Your task to perform on an android device: open sync settings in chrome Image 0: 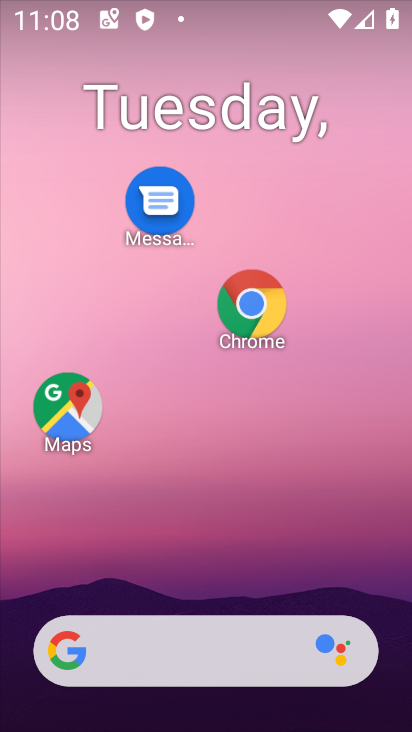
Step 0: drag from (247, 263) to (249, 173)
Your task to perform on an android device: open sync settings in chrome Image 1: 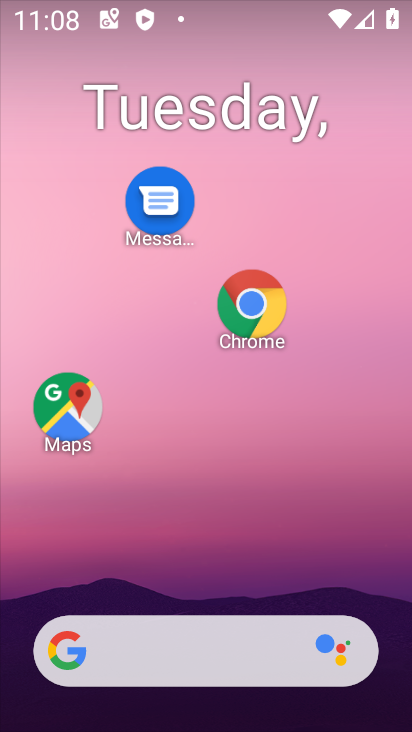
Step 1: drag from (270, 241) to (304, 120)
Your task to perform on an android device: open sync settings in chrome Image 2: 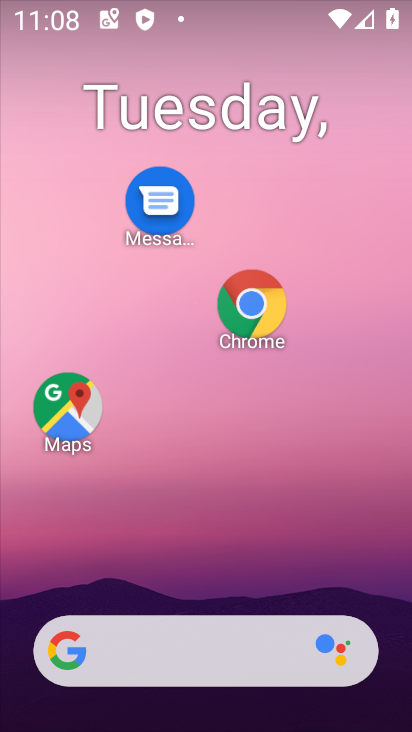
Step 2: drag from (174, 713) to (323, 114)
Your task to perform on an android device: open sync settings in chrome Image 3: 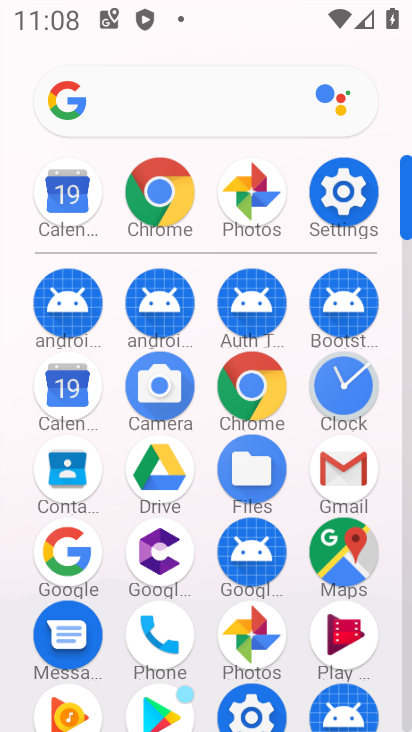
Step 3: click (253, 369)
Your task to perform on an android device: open sync settings in chrome Image 4: 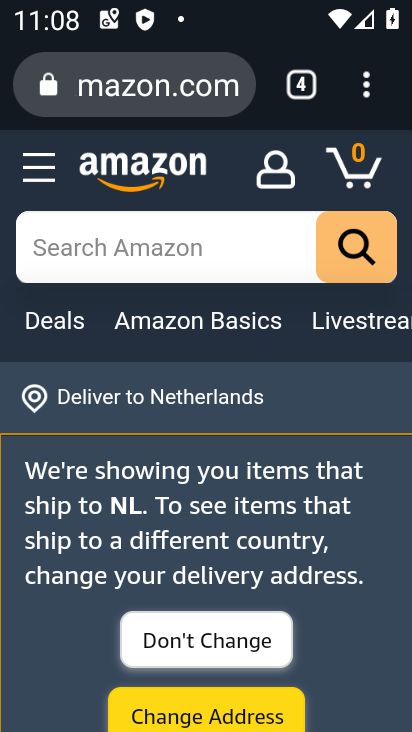
Step 4: click (365, 78)
Your task to perform on an android device: open sync settings in chrome Image 5: 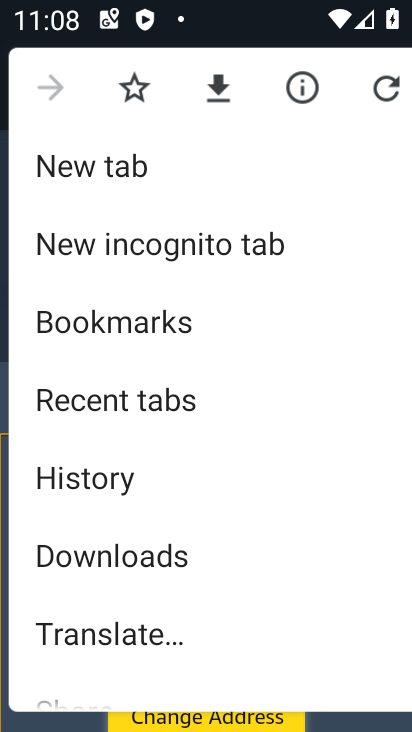
Step 5: drag from (199, 677) to (212, 578)
Your task to perform on an android device: open sync settings in chrome Image 6: 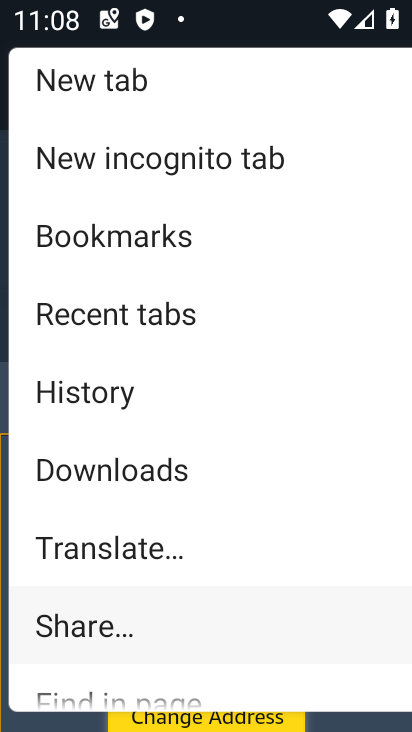
Step 6: drag from (203, 597) to (251, 258)
Your task to perform on an android device: open sync settings in chrome Image 7: 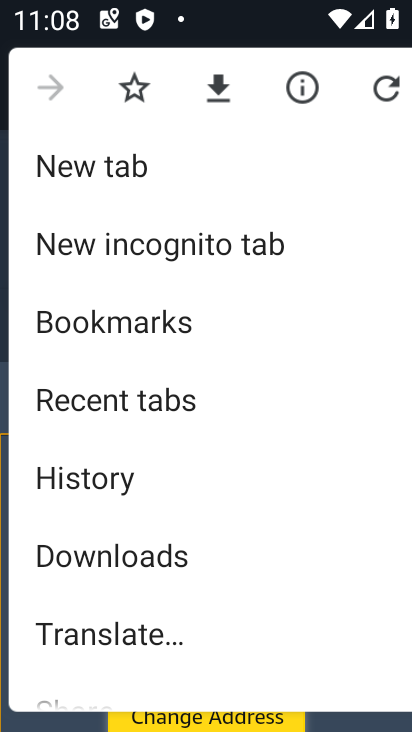
Step 7: drag from (218, 512) to (266, 247)
Your task to perform on an android device: open sync settings in chrome Image 8: 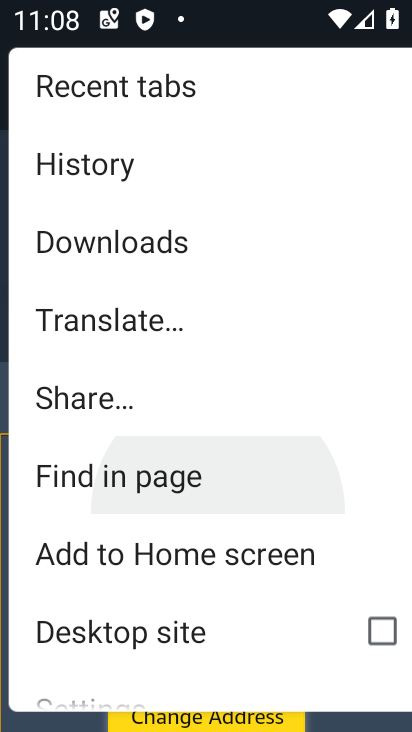
Step 8: drag from (210, 569) to (277, 229)
Your task to perform on an android device: open sync settings in chrome Image 9: 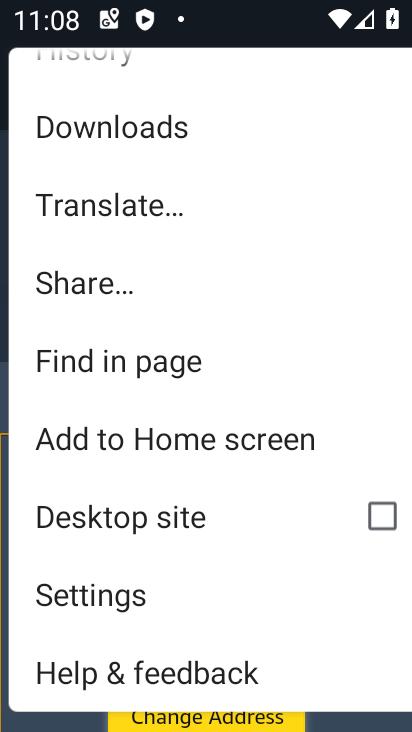
Step 9: click (171, 573)
Your task to perform on an android device: open sync settings in chrome Image 10: 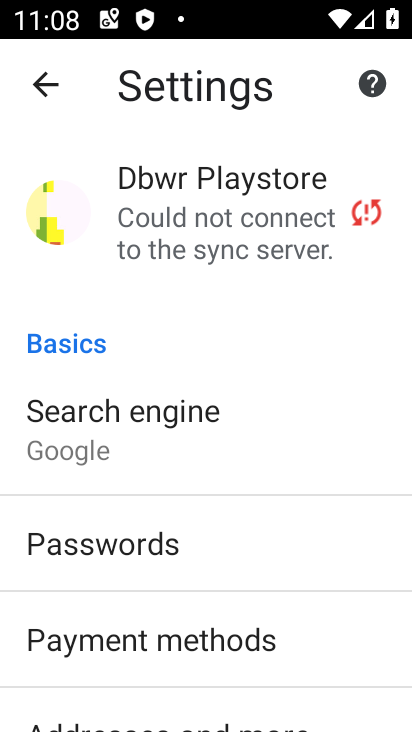
Step 10: click (243, 243)
Your task to perform on an android device: open sync settings in chrome Image 11: 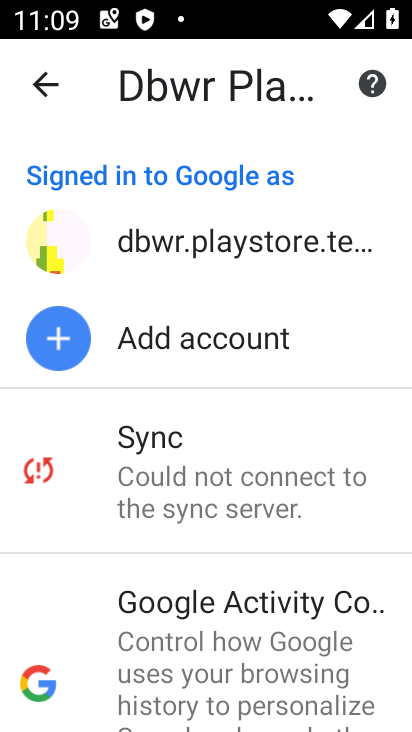
Step 11: task complete